Your task to perform on an android device: empty trash in google photos Image 0: 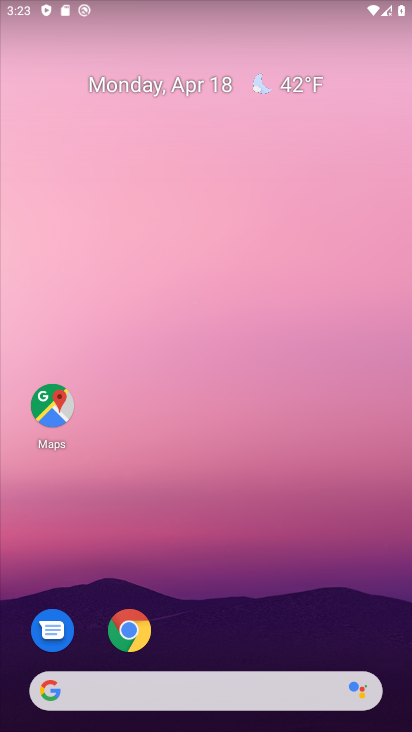
Step 0: drag from (237, 580) to (314, 215)
Your task to perform on an android device: empty trash in google photos Image 1: 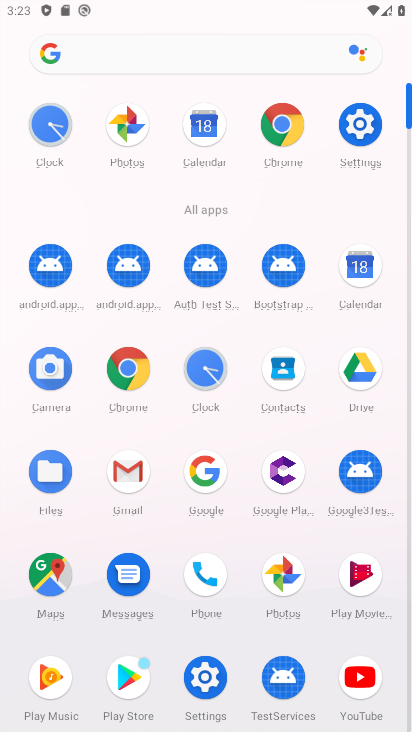
Step 1: click (283, 556)
Your task to perform on an android device: empty trash in google photos Image 2: 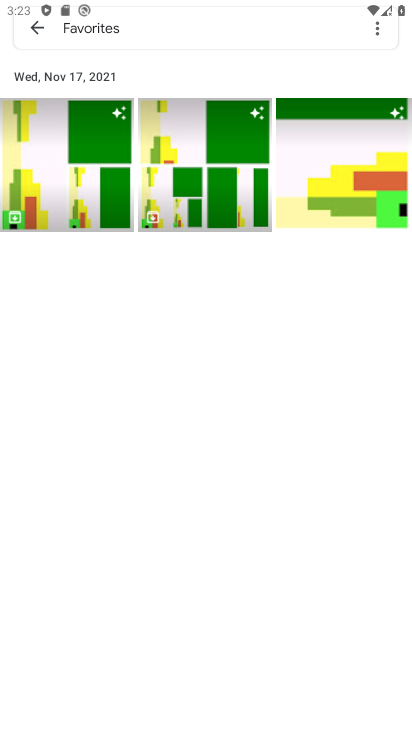
Step 2: press back button
Your task to perform on an android device: empty trash in google photos Image 3: 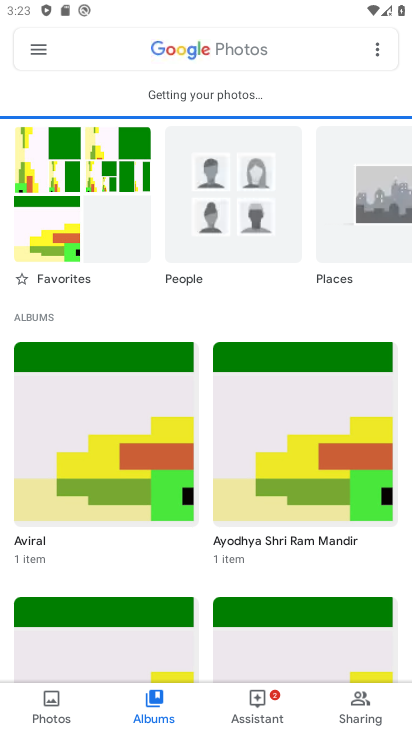
Step 3: click (29, 51)
Your task to perform on an android device: empty trash in google photos Image 4: 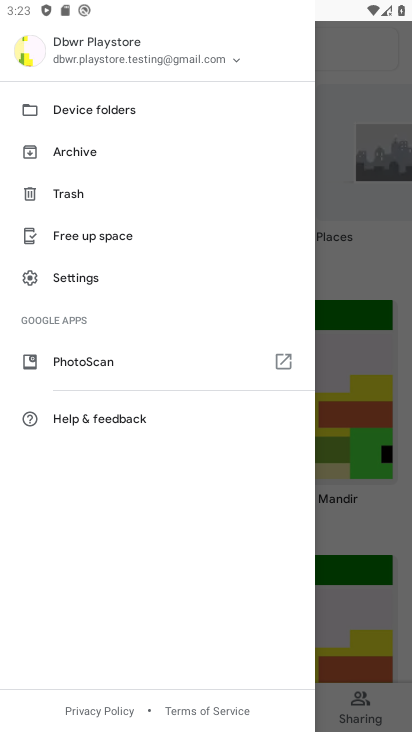
Step 4: click (100, 183)
Your task to perform on an android device: empty trash in google photos Image 5: 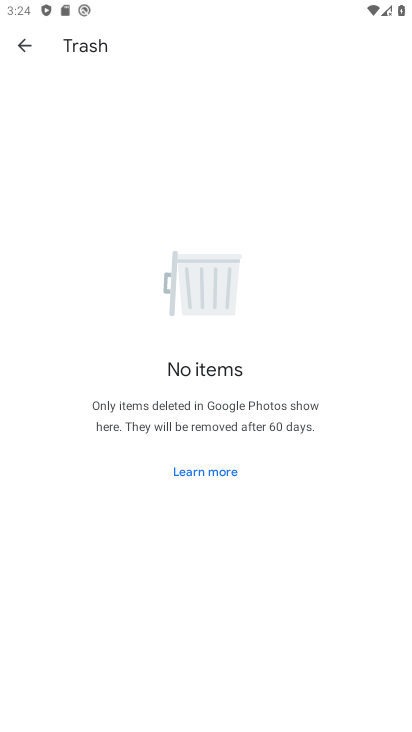
Step 5: task complete